Your task to perform on an android device: Open calendar and show me the second week of next month Image 0: 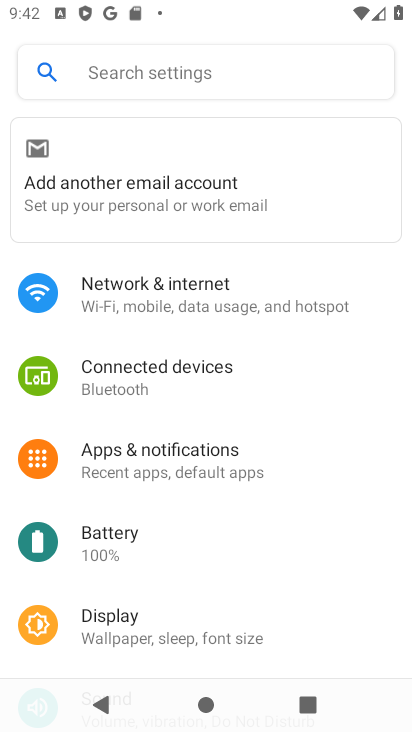
Step 0: press home button
Your task to perform on an android device: Open calendar and show me the second week of next month Image 1: 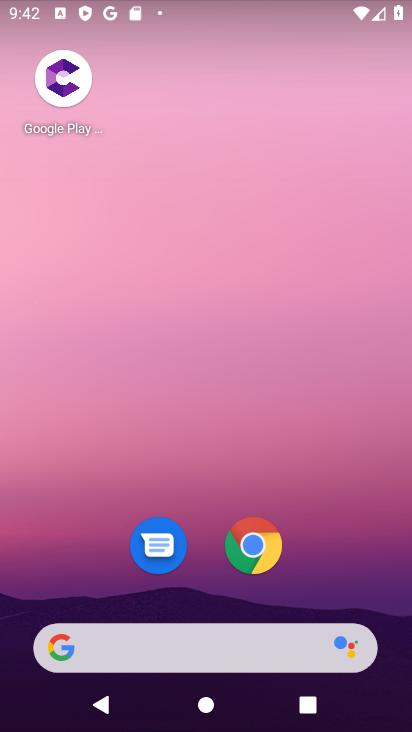
Step 1: drag from (230, 445) to (223, 9)
Your task to perform on an android device: Open calendar and show me the second week of next month Image 2: 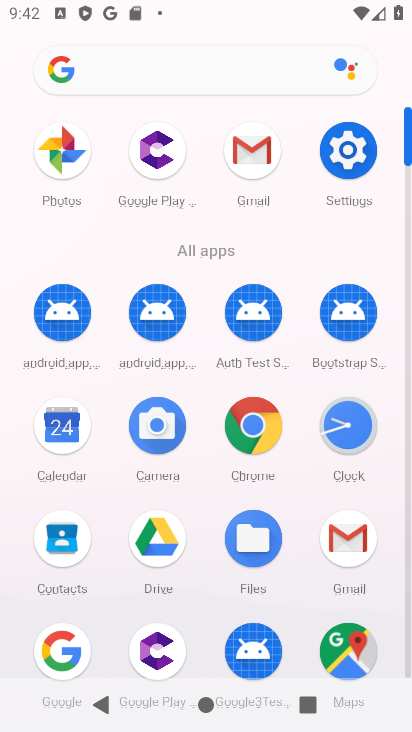
Step 2: click (62, 423)
Your task to perform on an android device: Open calendar and show me the second week of next month Image 3: 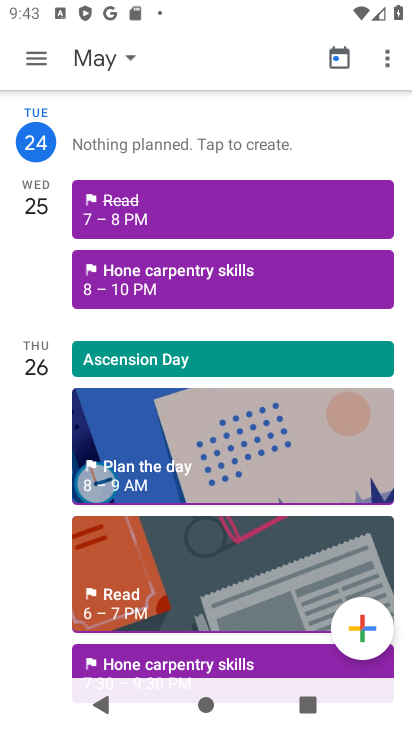
Step 3: click (39, 55)
Your task to perform on an android device: Open calendar and show me the second week of next month Image 4: 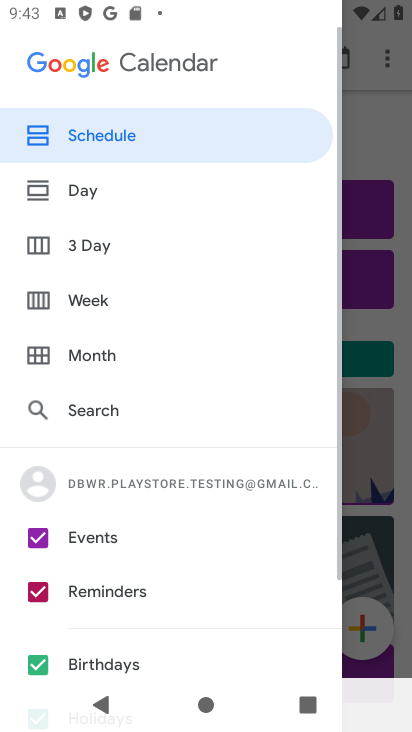
Step 4: click (75, 352)
Your task to perform on an android device: Open calendar and show me the second week of next month Image 5: 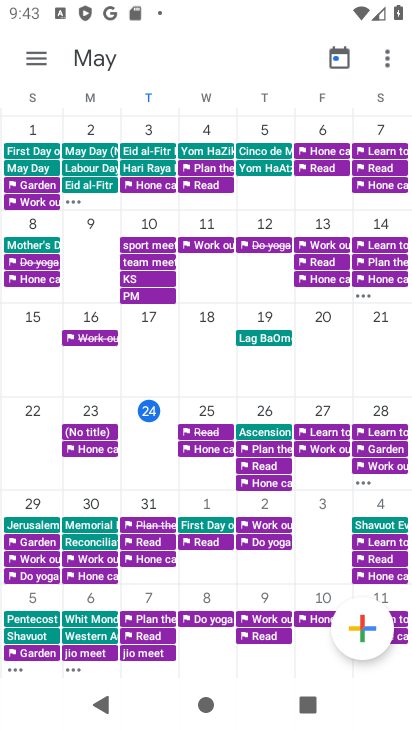
Step 5: drag from (390, 355) to (0, 361)
Your task to perform on an android device: Open calendar and show me the second week of next month Image 6: 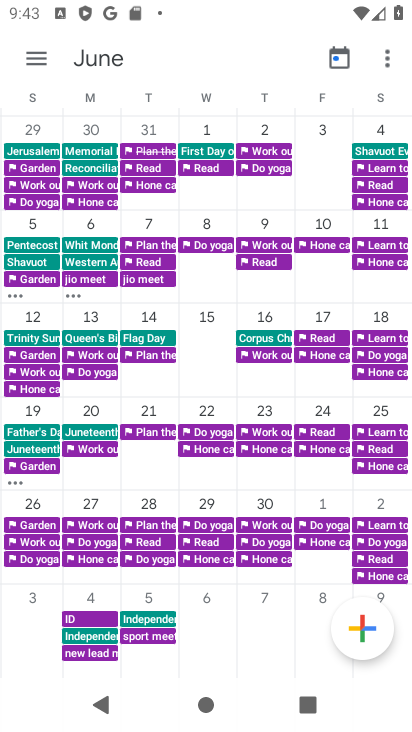
Step 6: click (46, 312)
Your task to perform on an android device: Open calendar and show me the second week of next month Image 7: 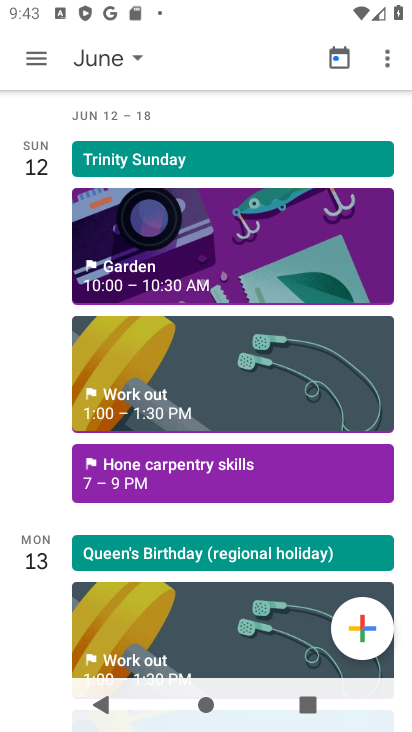
Step 7: click (32, 50)
Your task to perform on an android device: Open calendar and show me the second week of next month Image 8: 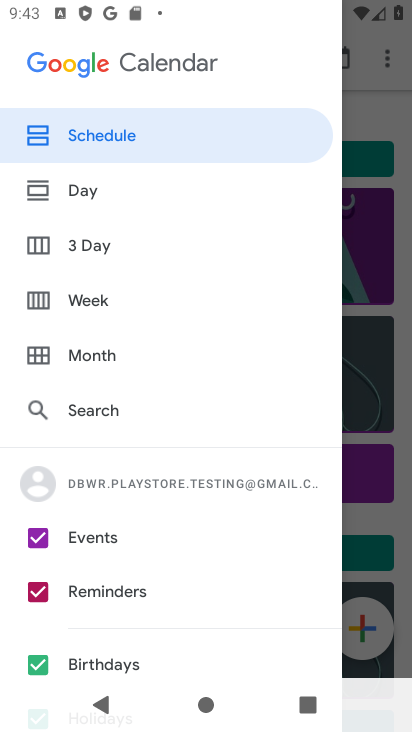
Step 8: click (30, 290)
Your task to perform on an android device: Open calendar and show me the second week of next month Image 9: 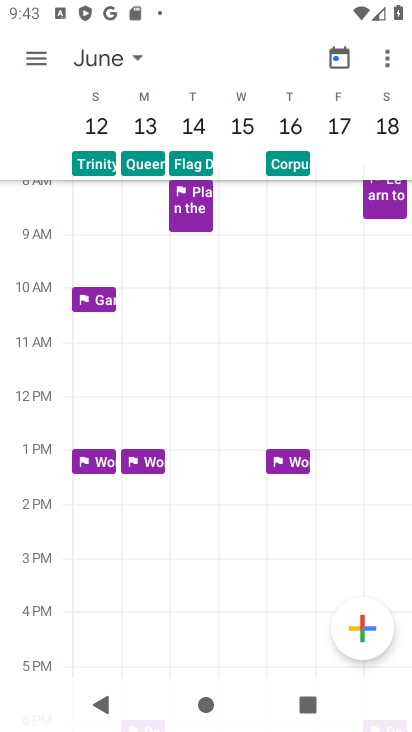
Step 9: task complete